Your task to perform on an android device: change the clock style Image 0: 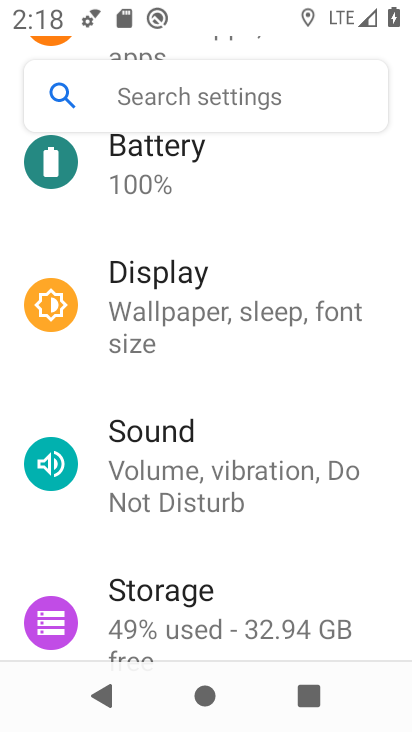
Step 0: press home button
Your task to perform on an android device: change the clock style Image 1: 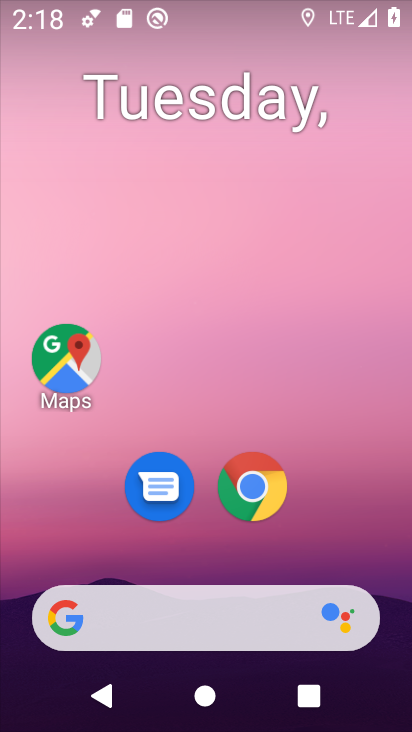
Step 1: drag from (343, 529) to (365, 92)
Your task to perform on an android device: change the clock style Image 2: 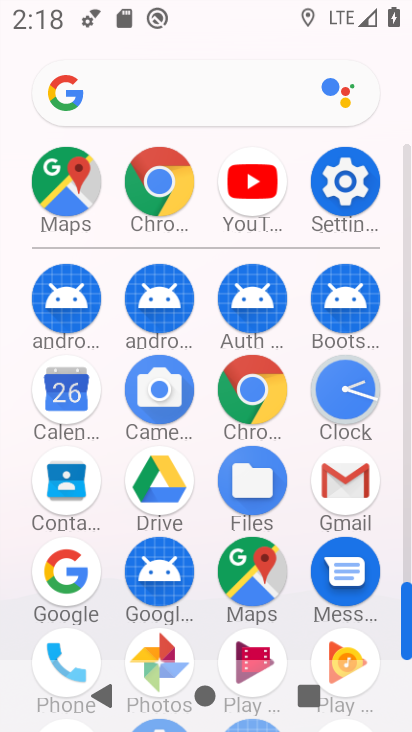
Step 2: click (347, 394)
Your task to perform on an android device: change the clock style Image 3: 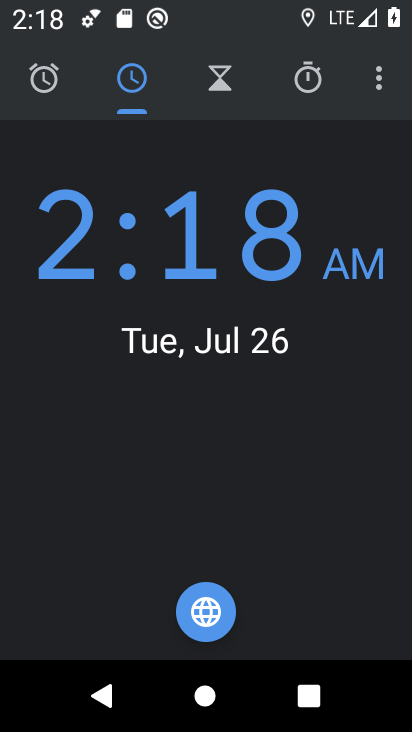
Step 3: click (375, 94)
Your task to perform on an android device: change the clock style Image 4: 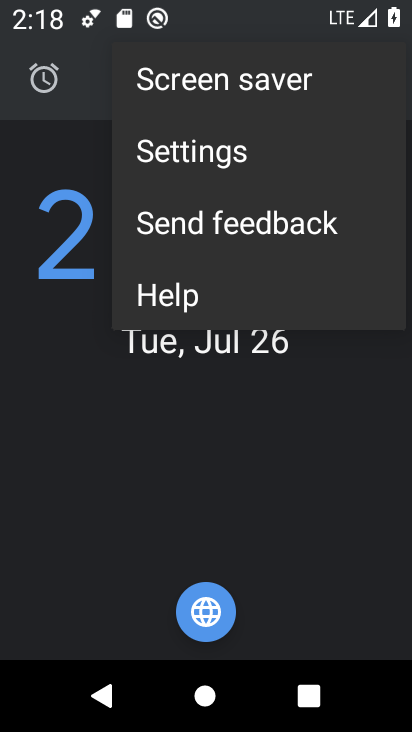
Step 4: click (309, 149)
Your task to perform on an android device: change the clock style Image 5: 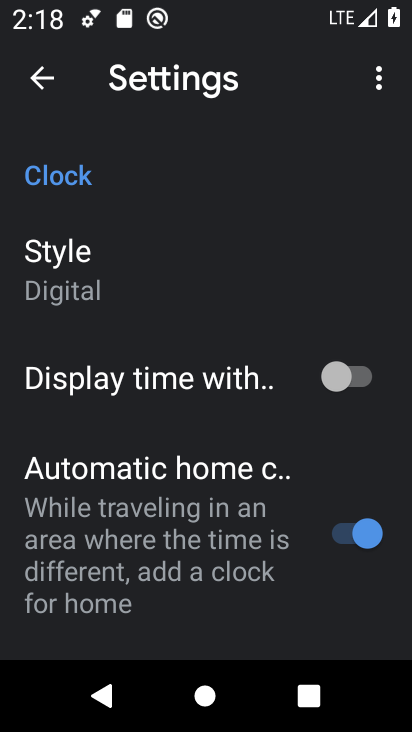
Step 5: drag from (269, 439) to (276, 354)
Your task to perform on an android device: change the clock style Image 6: 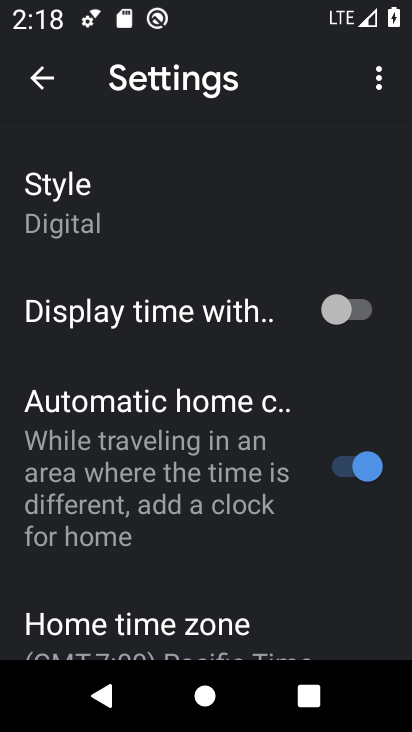
Step 6: drag from (270, 454) to (275, 334)
Your task to perform on an android device: change the clock style Image 7: 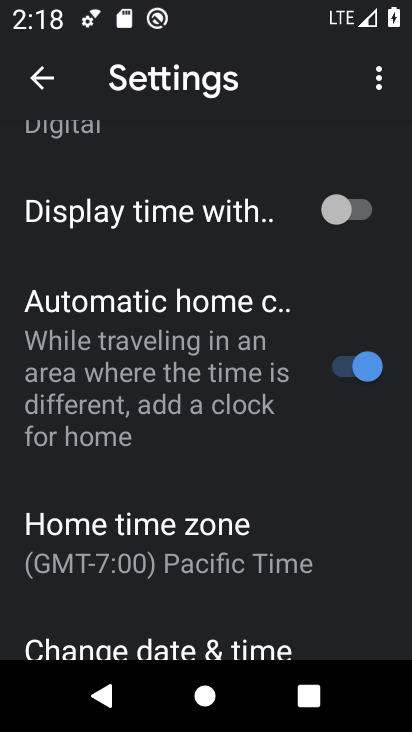
Step 7: drag from (289, 484) to (300, 369)
Your task to perform on an android device: change the clock style Image 8: 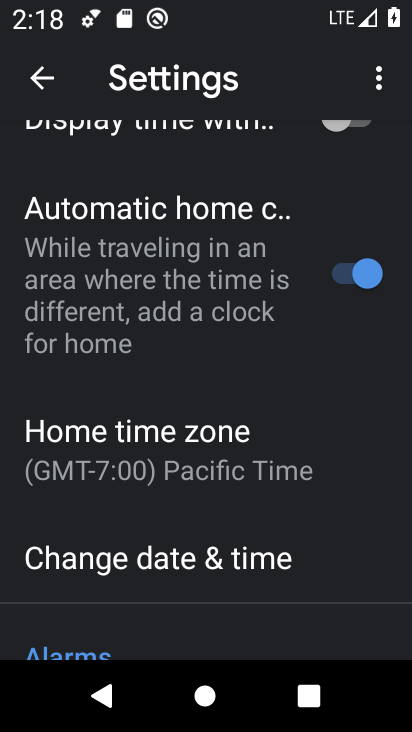
Step 8: drag from (302, 504) to (302, 361)
Your task to perform on an android device: change the clock style Image 9: 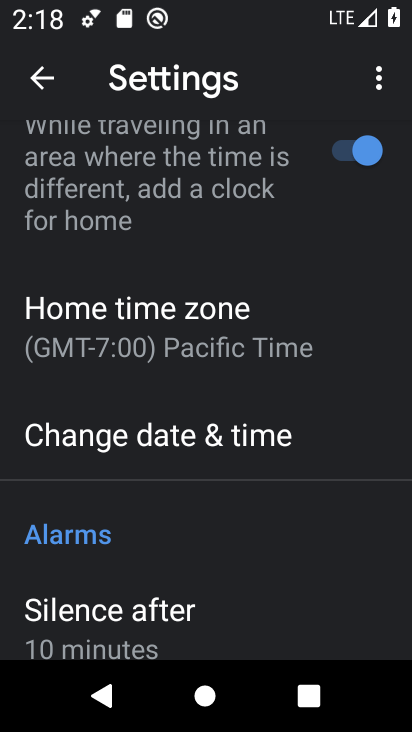
Step 9: drag from (273, 551) to (293, 386)
Your task to perform on an android device: change the clock style Image 10: 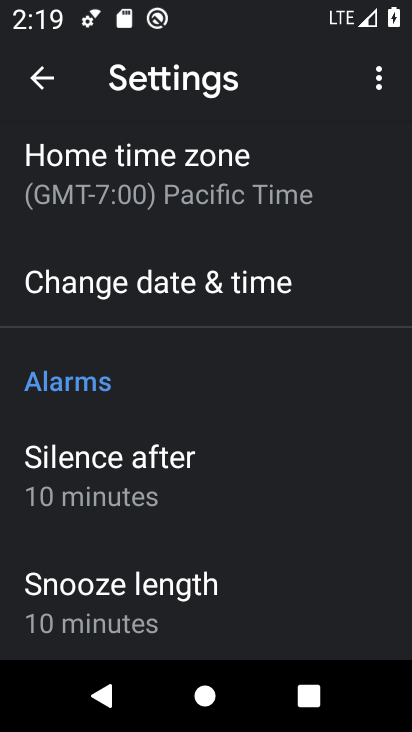
Step 10: drag from (321, 504) to (319, 395)
Your task to perform on an android device: change the clock style Image 11: 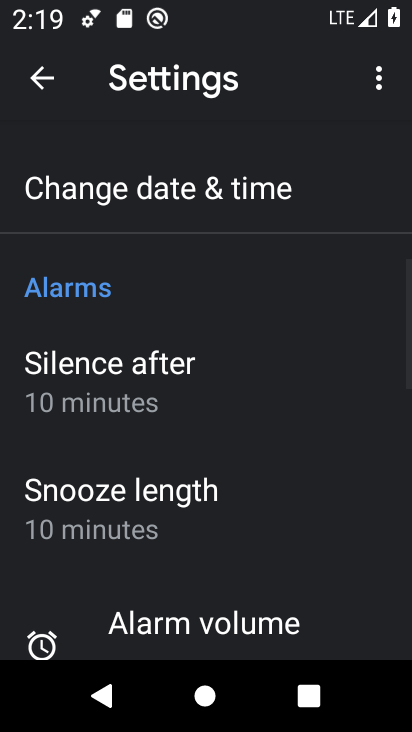
Step 11: drag from (323, 476) to (322, 349)
Your task to perform on an android device: change the clock style Image 12: 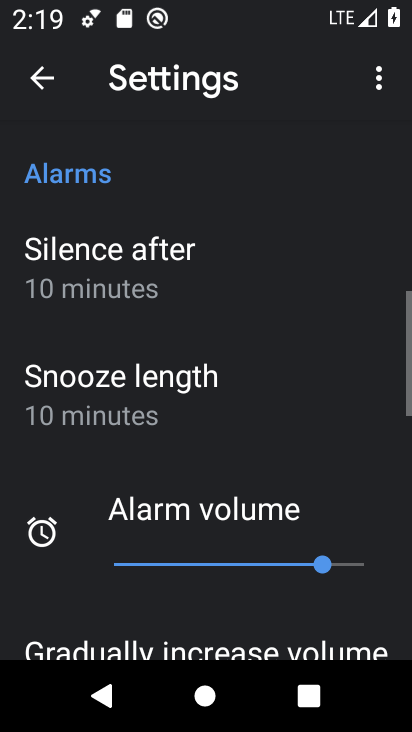
Step 12: drag from (337, 493) to (339, 351)
Your task to perform on an android device: change the clock style Image 13: 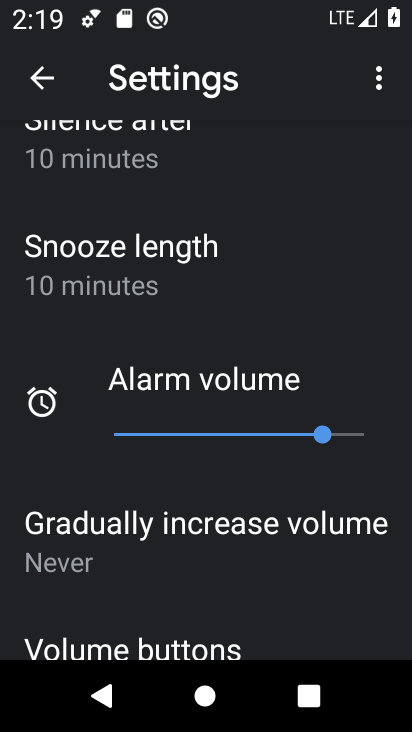
Step 13: drag from (333, 552) to (337, 358)
Your task to perform on an android device: change the clock style Image 14: 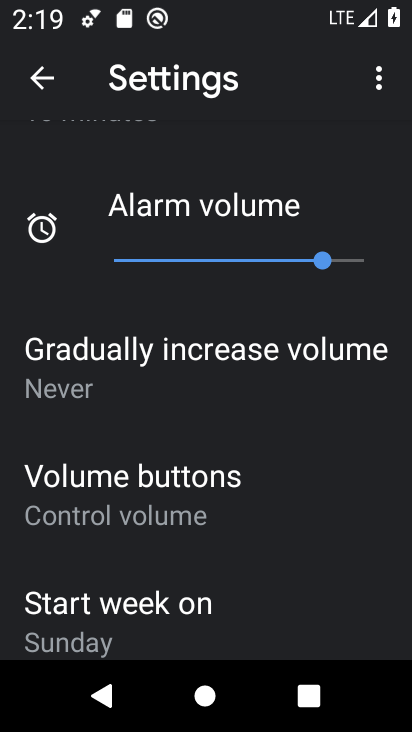
Step 14: drag from (338, 525) to (341, 391)
Your task to perform on an android device: change the clock style Image 15: 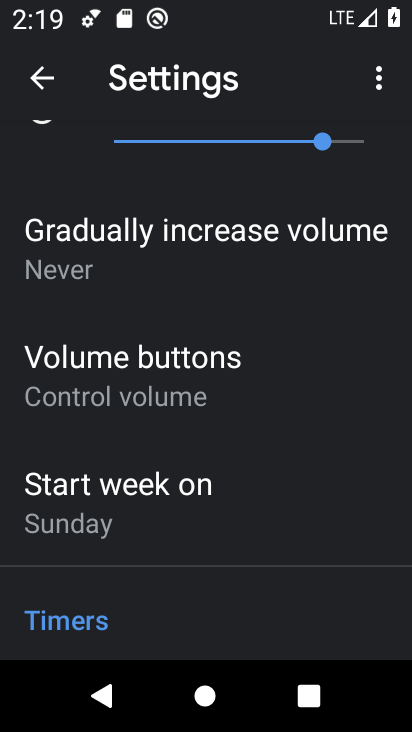
Step 15: drag from (339, 274) to (334, 400)
Your task to perform on an android device: change the clock style Image 16: 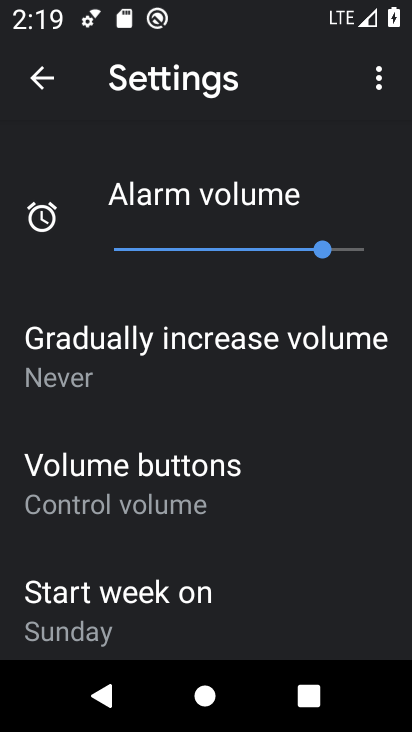
Step 16: drag from (379, 203) to (373, 376)
Your task to perform on an android device: change the clock style Image 17: 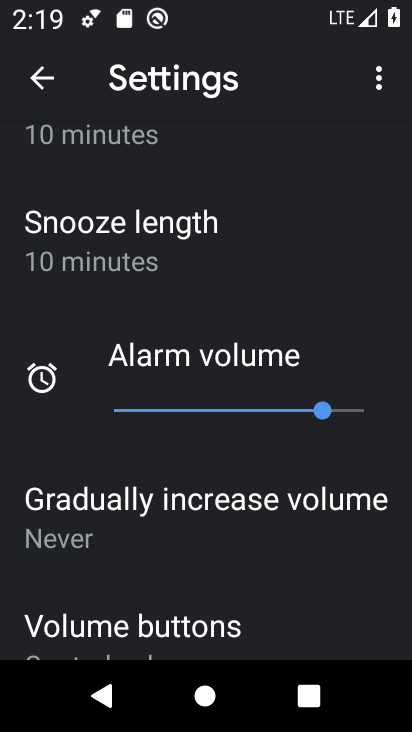
Step 17: drag from (319, 169) to (318, 342)
Your task to perform on an android device: change the clock style Image 18: 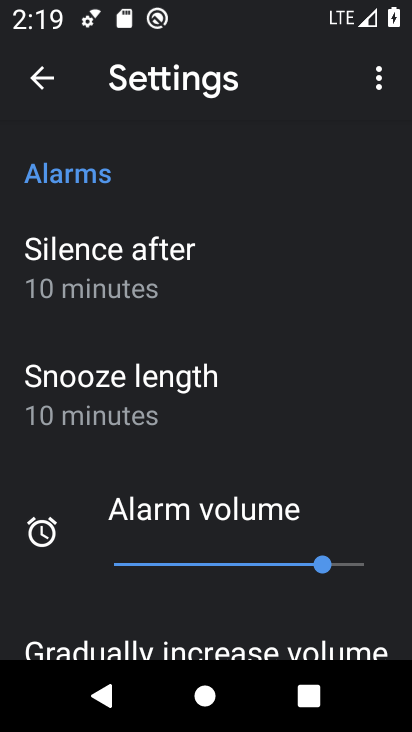
Step 18: drag from (297, 179) to (299, 386)
Your task to perform on an android device: change the clock style Image 19: 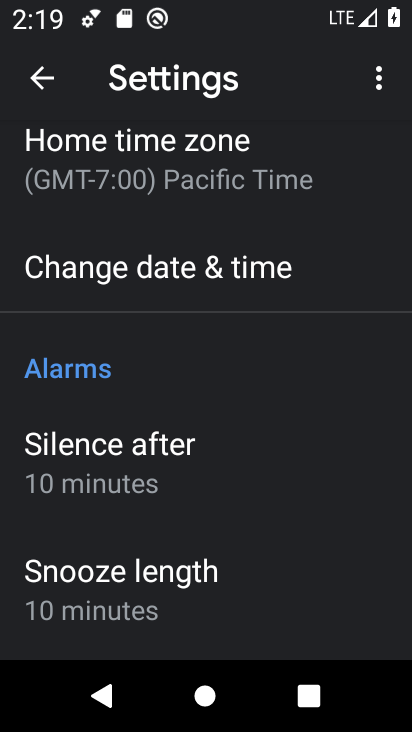
Step 19: drag from (314, 157) to (325, 382)
Your task to perform on an android device: change the clock style Image 20: 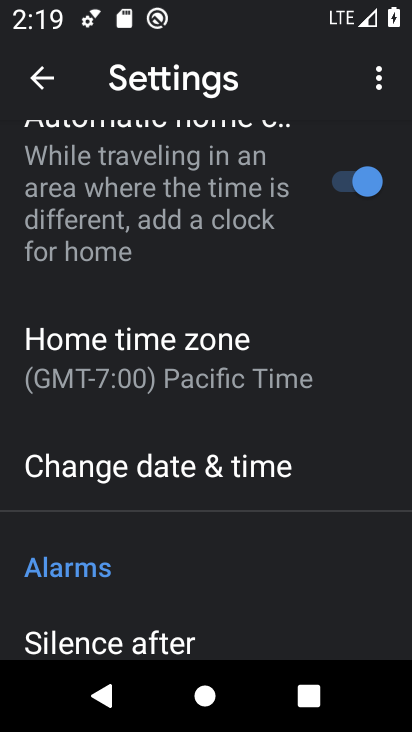
Step 20: drag from (290, 152) to (289, 385)
Your task to perform on an android device: change the clock style Image 21: 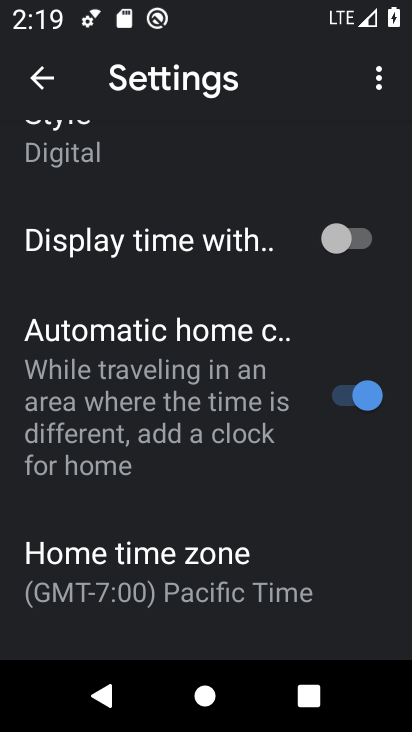
Step 21: drag from (246, 157) to (247, 298)
Your task to perform on an android device: change the clock style Image 22: 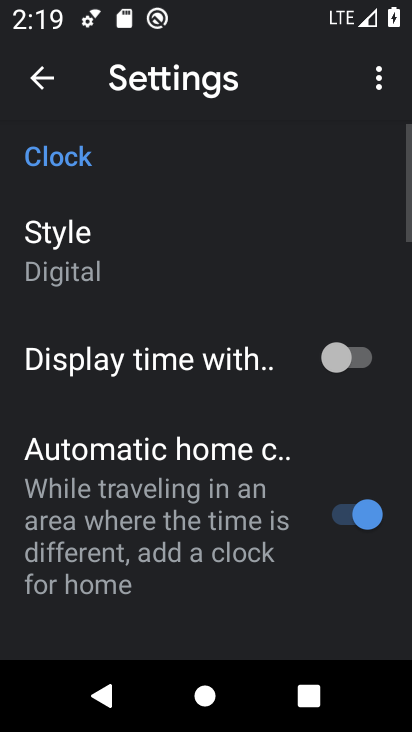
Step 22: click (117, 267)
Your task to perform on an android device: change the clock style Image 23: 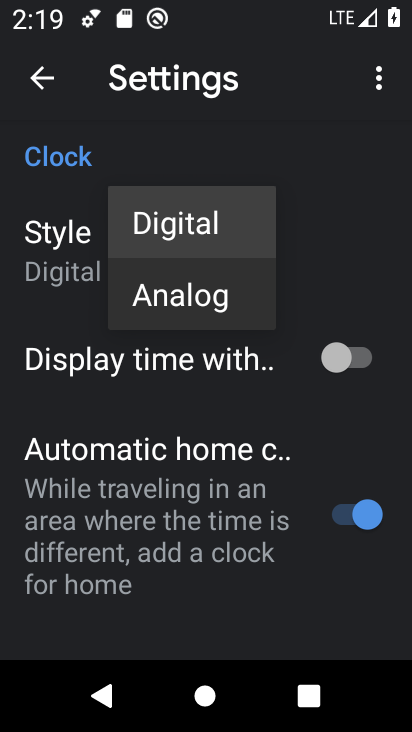
Step 23: click (171, 299)
Your task to perform on an android device: change the clock style Image 24: 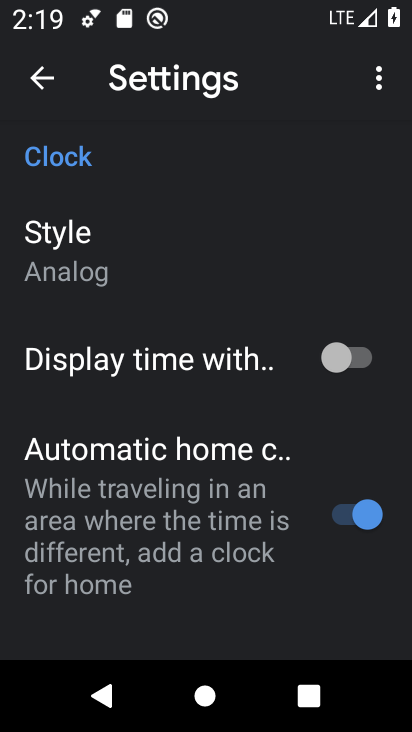
Step 24: task complete